Your task to perform on an android device: Open the calendar app, open the side menu, and click the "Day" option Image 0: 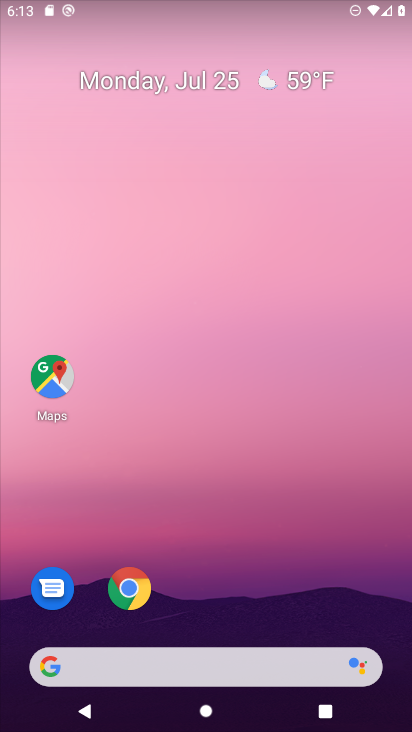
Step 0: drag from (253, 561) to (268, 79)
Your task to perform on an android device: Open the calendar app, open the side menu, and click the "Day" option Image 1: 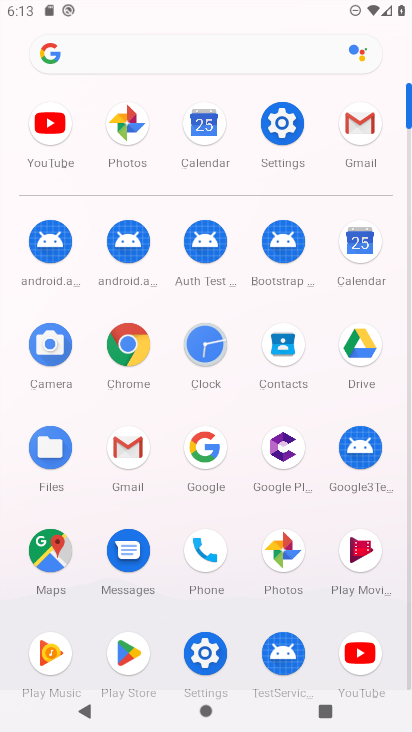
Step 1: click (353, 242)
Your task to perform on an android device: Open the calendar app, open the side menu, and click the "Day" option Image 2: 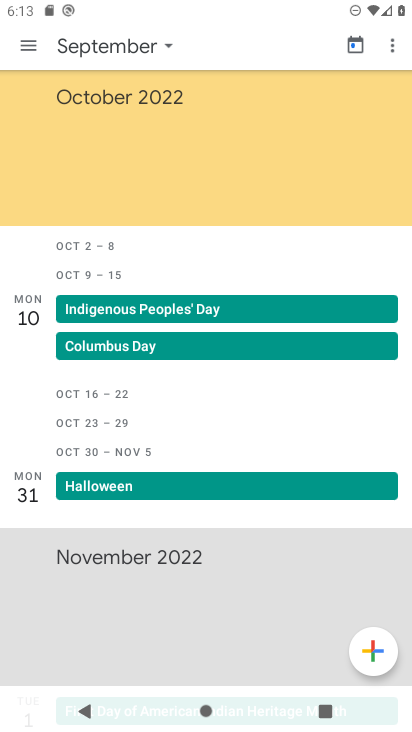
Step 2: click (26, 38)
Your task to perform on an android device: Open the calendar app, open the side menu, and click the "Day" option Image 3: 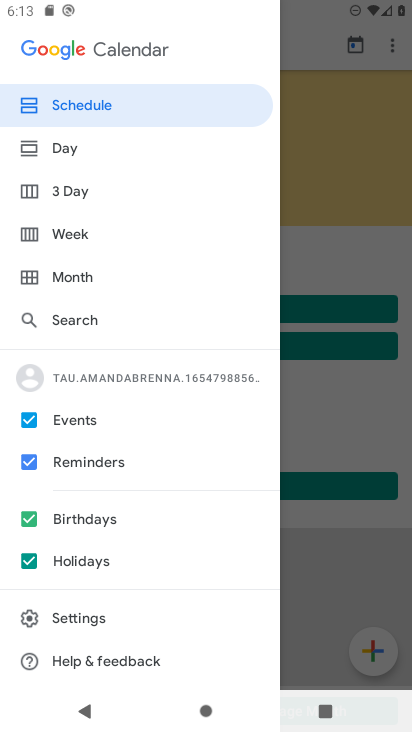
Step 3: click (63, 153)
Your task to perform on an android device: Open the calendar app, open the side menu, and click the "Day" option Image 4: 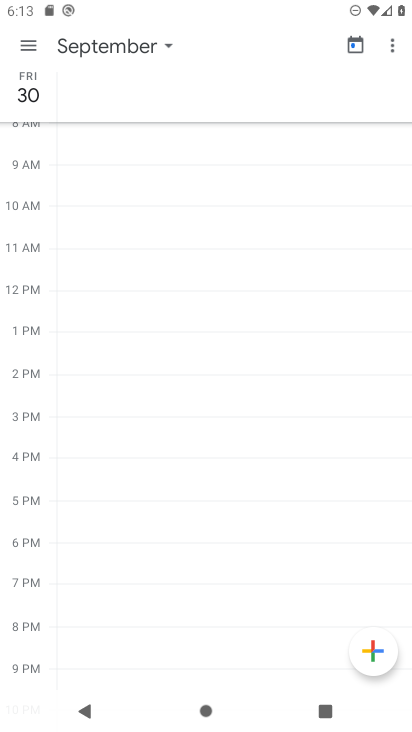
Step 4: task complete